Your task to perform on an android device: What is the news today? Image 0: 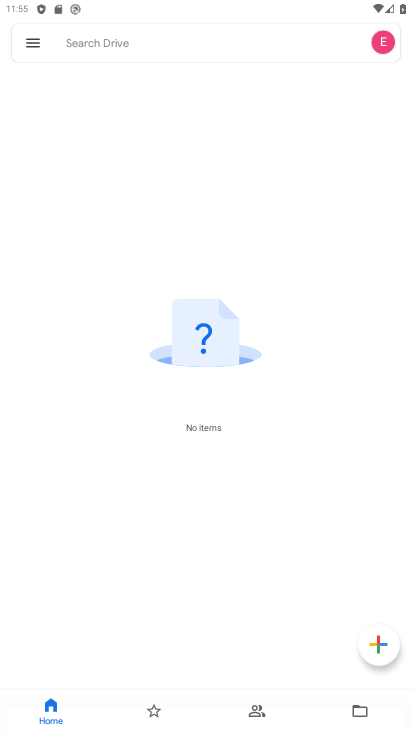
Step 0: press home button
Your task to perform on an android device: What is the news today? Image 1: 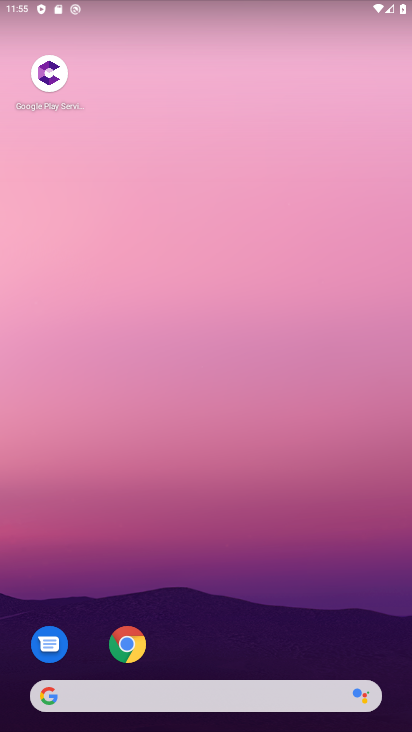
Step 1: click (103, 695)
Your task to perform on an android device: What is the news today? Image 2: 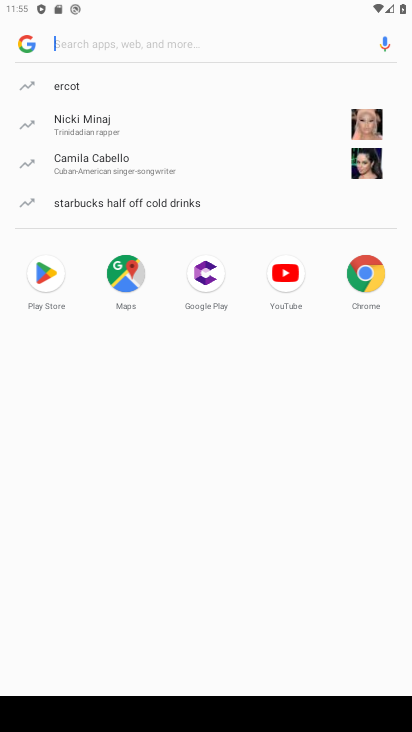
Step 2: type "What is the news today?"
Your task to perform on an android device: What is the news today? Image 3: 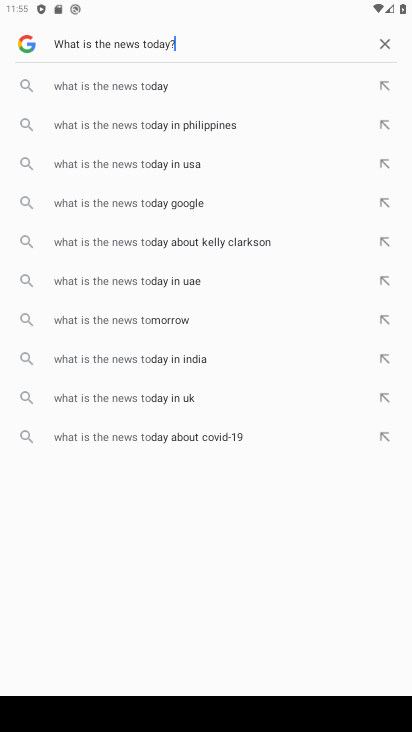
Step 3: type ""
Your task to perform on an android device: What is the news today? Image 4: 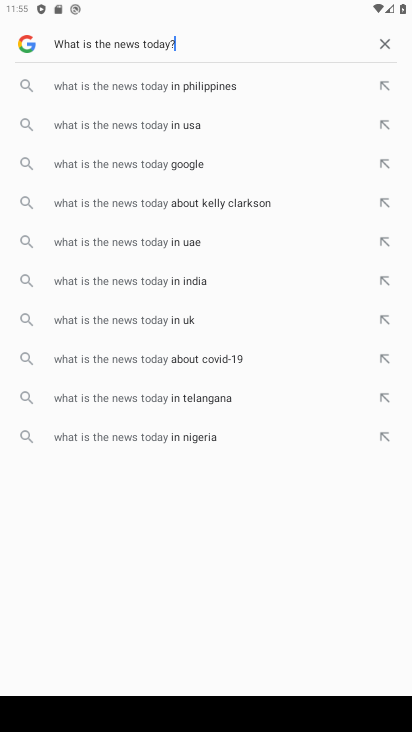
Step 4: task complete